Your task to perform on an android device: Go to ESPN.com Image 0: 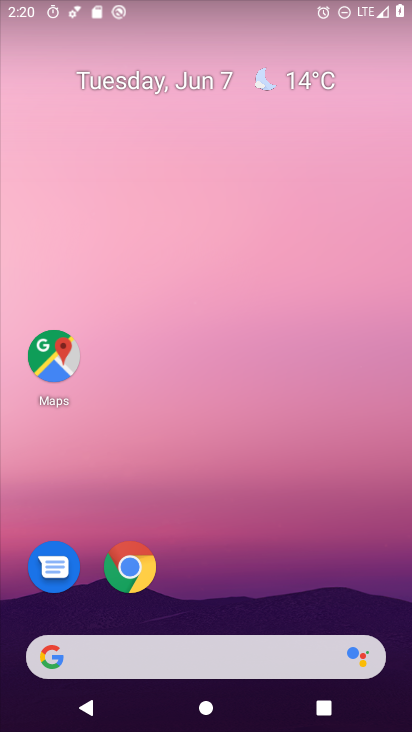
Step 0: drag from (334, 525) to (355, 54)
Your task to perform on an android device: Go to ESPN.com Image 1: 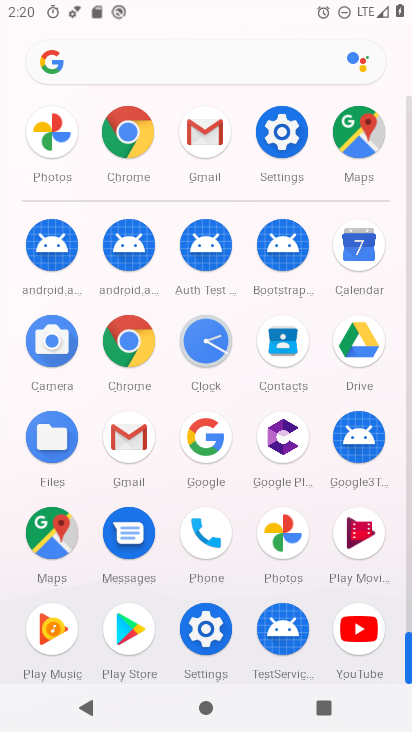
Step 1: click (122, 162)
Your task to perform on an android device: Go to ESPN.com Image 2: 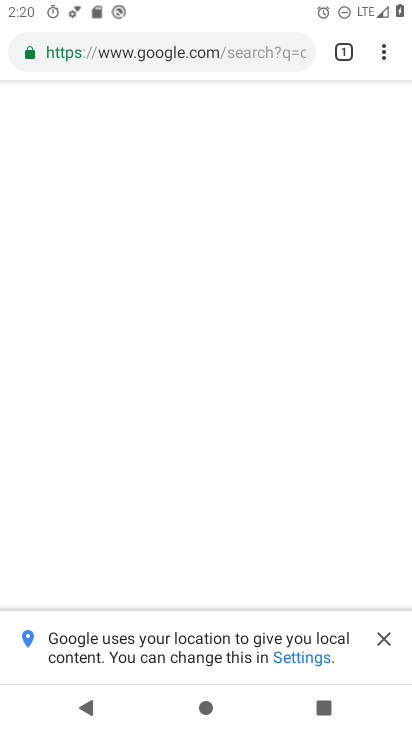
Step 2: click (200, 51)
Your task to perform on an android device: Go to ESPN.com Image 3: 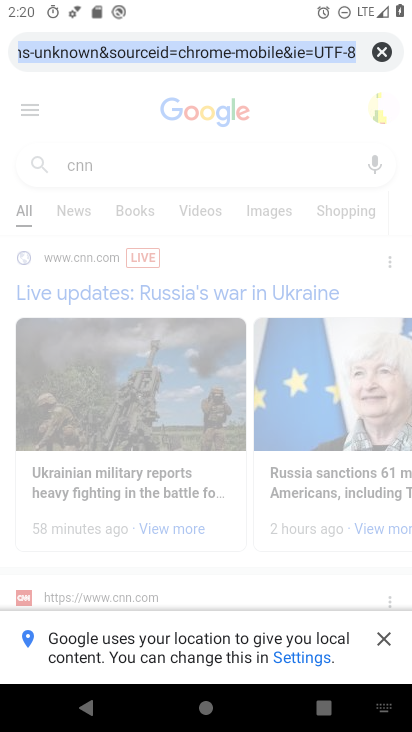
Step 3: click (379, 51)
Your task to perform on an android device: Go to ESPN.com Image 4: 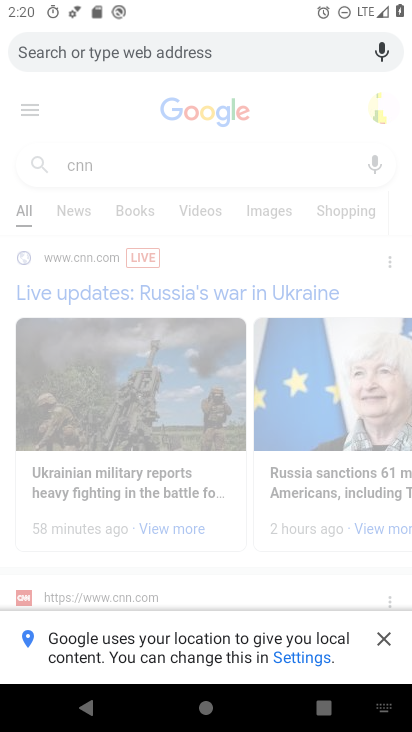
Step 4: type "espn"
Your task to perform on an android device: Go to ESPN.com Image 5: 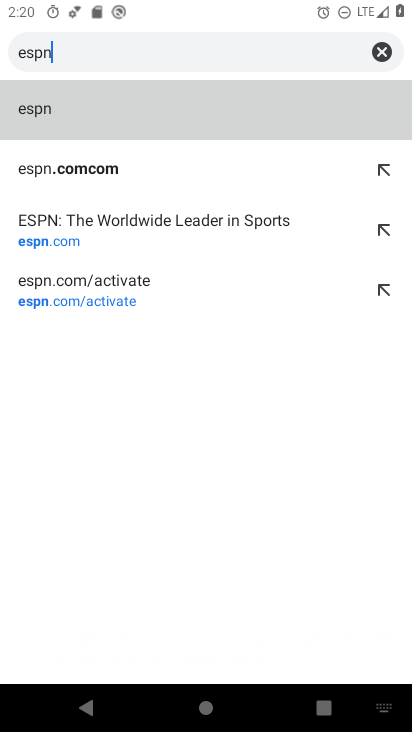
Step 5: click (37, 228)
Your task to perform on an android device: Go to ESPN.com Image 6: 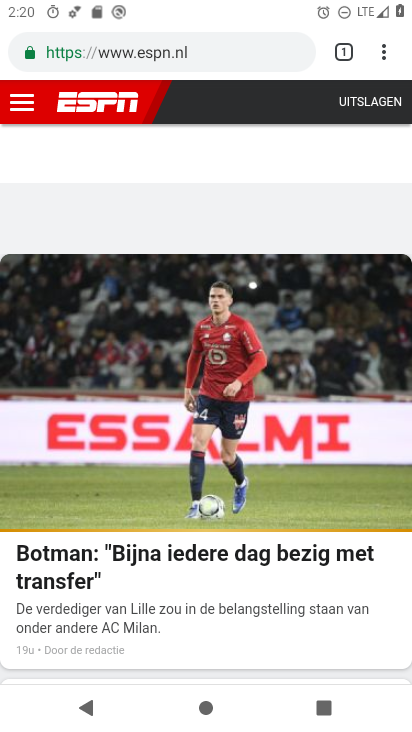
Step 6: task complete